Your task to perform on an android device: Open Youtube and go to the subscriptions tab Image 0: 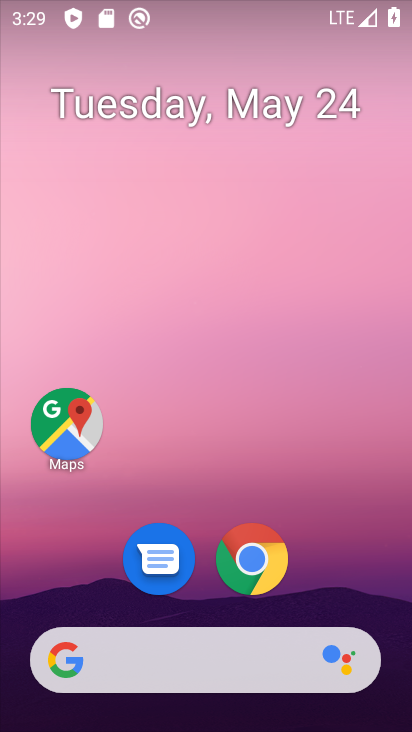
Step 0: drag from (343, 566) to (264, 91)
Your task to perform on an android device: Open Youtube and go to the subscriptions tab Image 1: 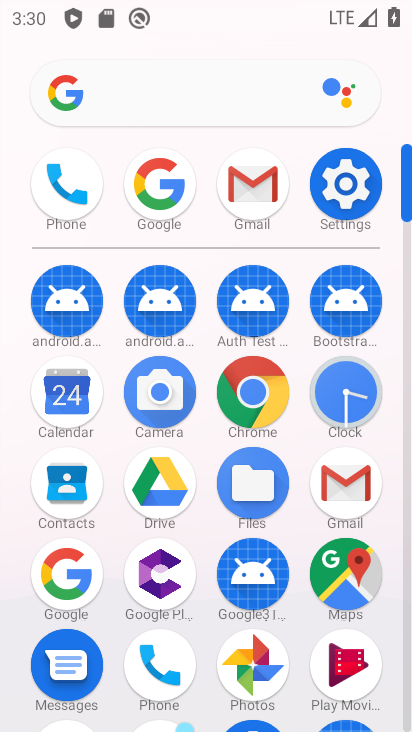
Step 1: drag from (293, 513) to (288, 175)
Your task to perform on an android device: Open Youtube and go to the subscriptions tab Image 2: 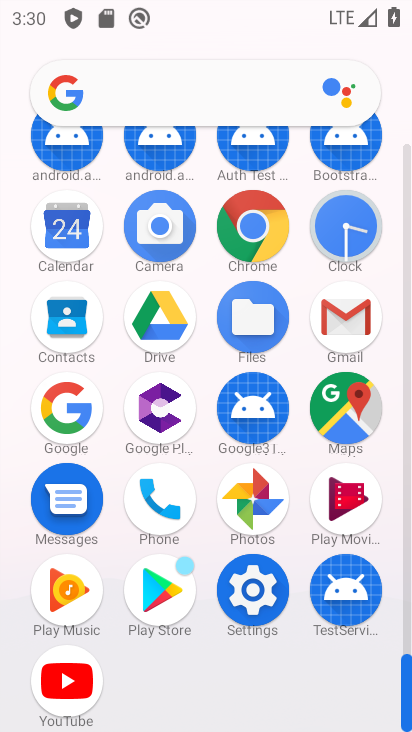
Step 2: click (65, 683)
Your task to perform on an android device: Open Youtube and go to the subscriptions tab Image 3: 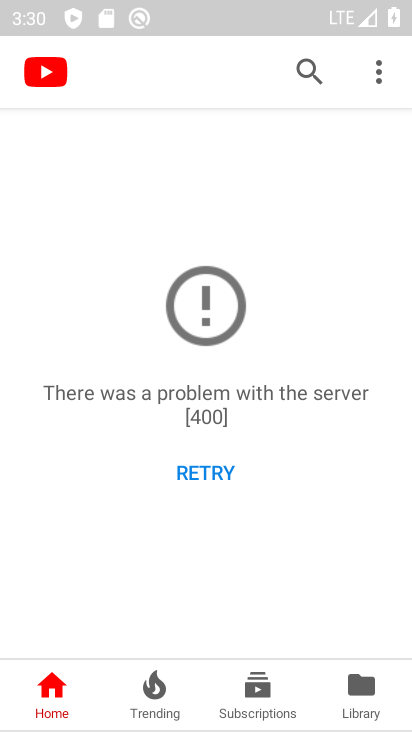
Step 3: click (208, 473)
Your task to perform on an android device: Open Youtube and go to the subscriptions tab Image 4: 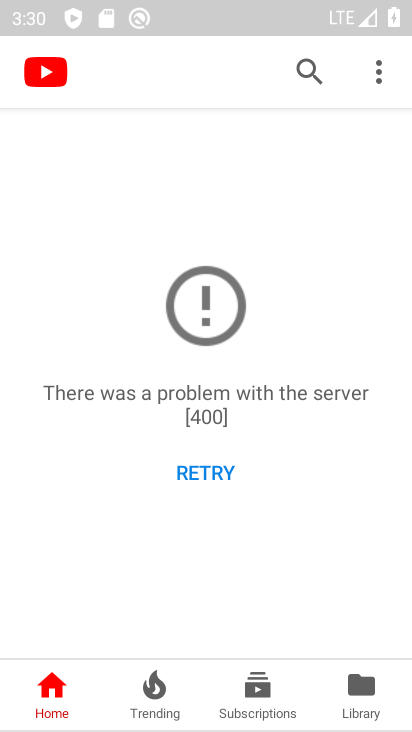
Step 4: click (214, 468)
Your task to perform on an android device: Open Youtube and go to the subscriptions tab Image 5: 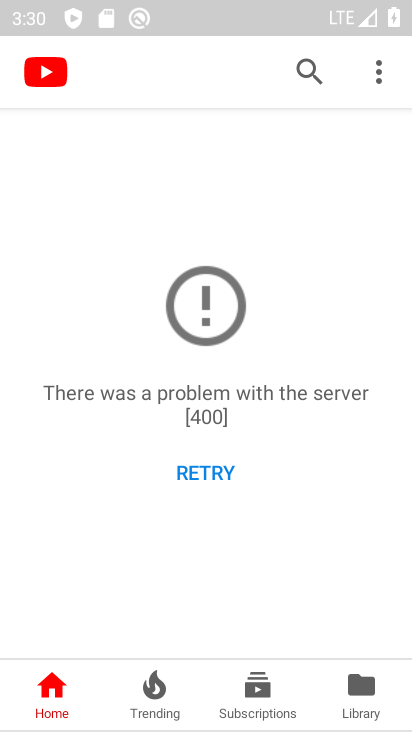
Step 5: click (214, 468)
Your task to perform on an android device: Open Youtube and go to the subscriptions tab Image 6: 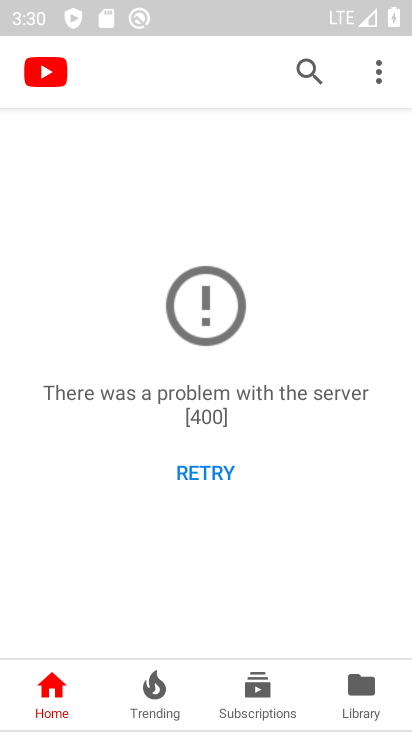
Step 6: click (261, 696)
Your task to perform on an android device: Open Youtube and go to the subscriptions tab Image 7: 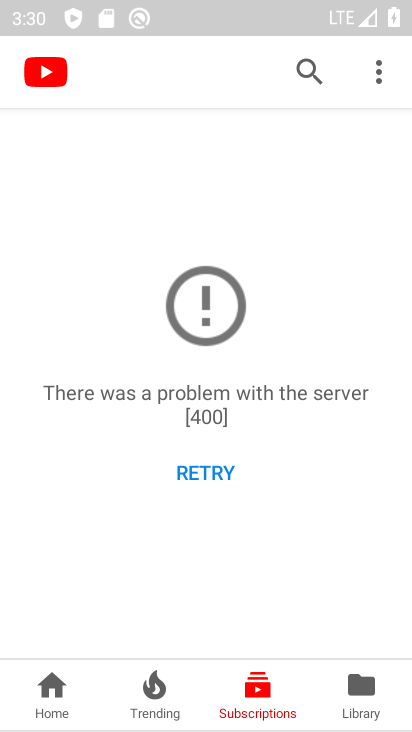
Step 7: task complete